Your task to perform on an android device: toggle sleep mode Image 0: 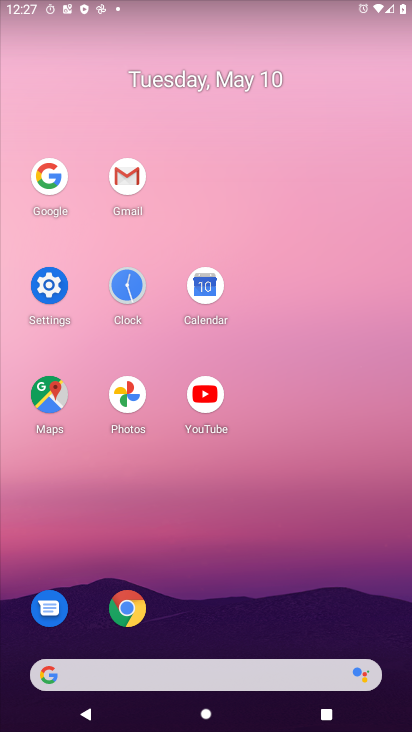
Step 0: click (47, 287)
Your task to perform on an android device: toggle sleep mode Image 1: 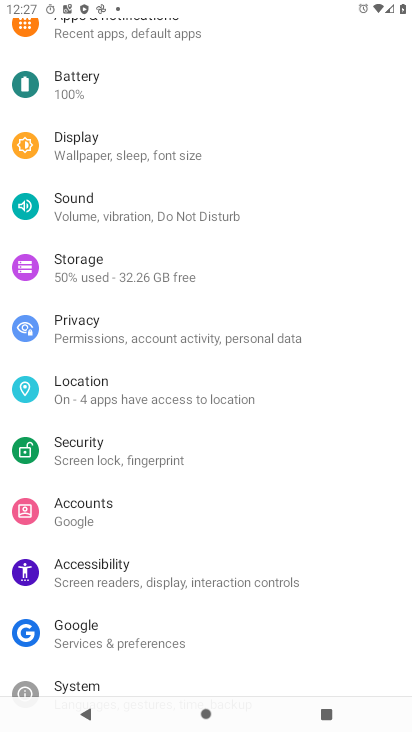
Step 1: click (184, 172)
Your task to perform on an android device: toggle sleep mode Image 2: 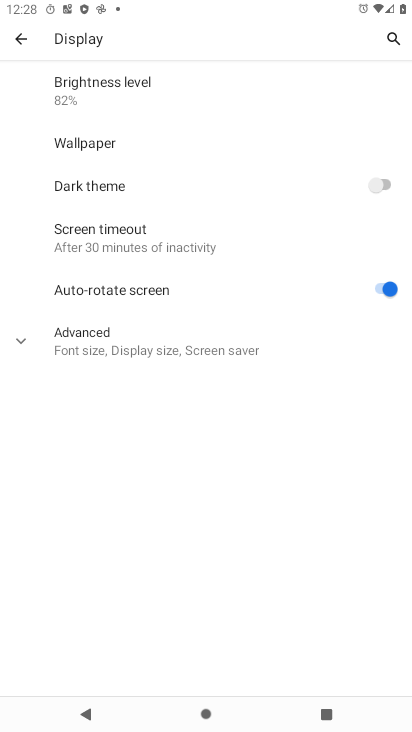
Step 2: click (181, 235)
Your task to perform on an android device: toggle sleep mode Image 3: 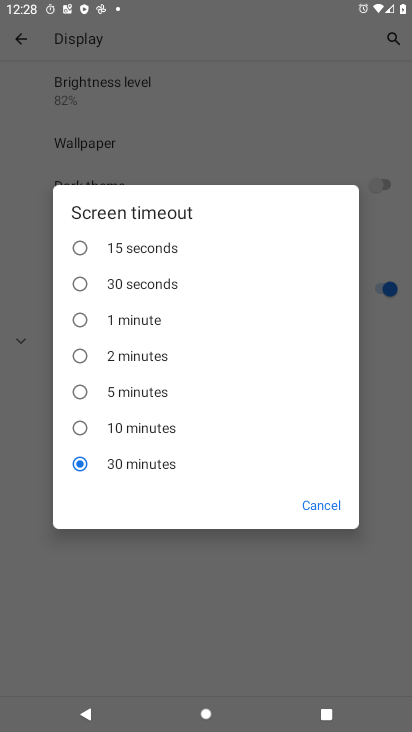
Step 3: click (173, 272)
Your task to perform on an android device: toggle sleep mode Image 4: 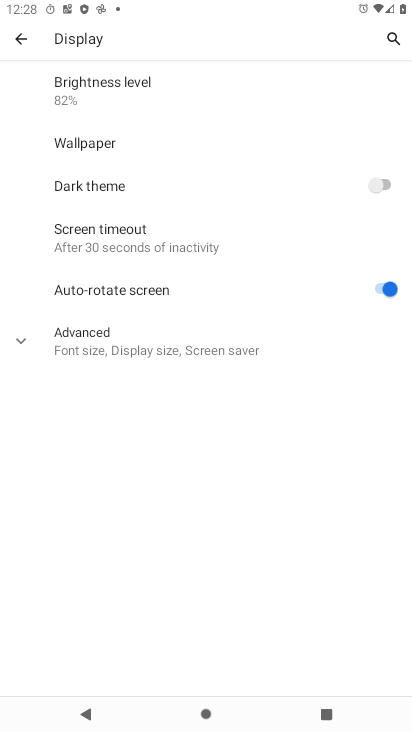
Step 4: task complete